Your task to perform on an android device: What's the weather going to be tomorrow? Image 0: 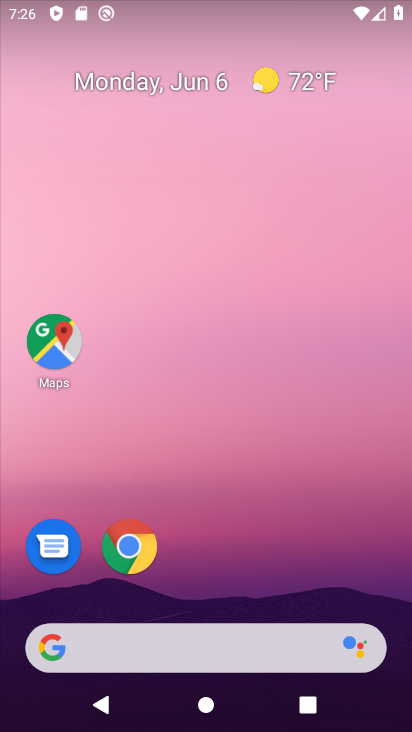
Step 0: click (135, 549)
Your task to perform on an android device: What's the weather going to be tomorrow? Image 1: 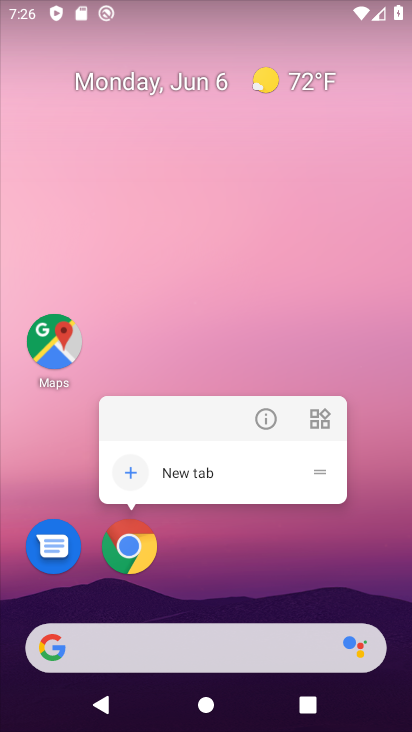
Step 1: click (133, 548)
Your task to perform on an android device: What's the weather going to be tomorrow? Image 2: 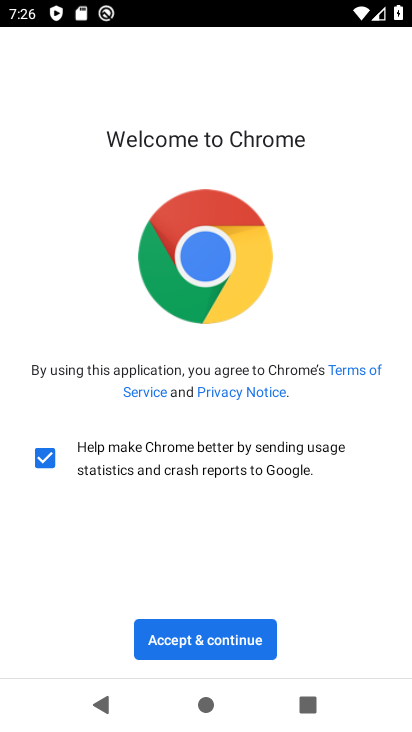
Step 2: click (213, 633)
Your task to perform on an android device: What's the weather going to be tomorrow? Image 3: 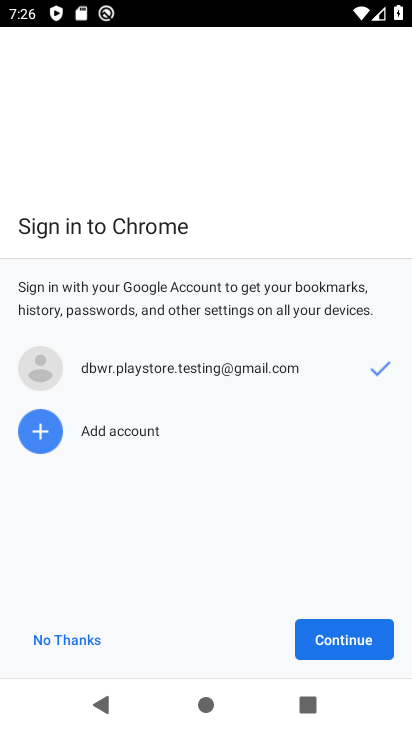
Step 3: click (353, 640)
Your task to perform on an android device: What's the weather going to be tomorrow? Image 4: 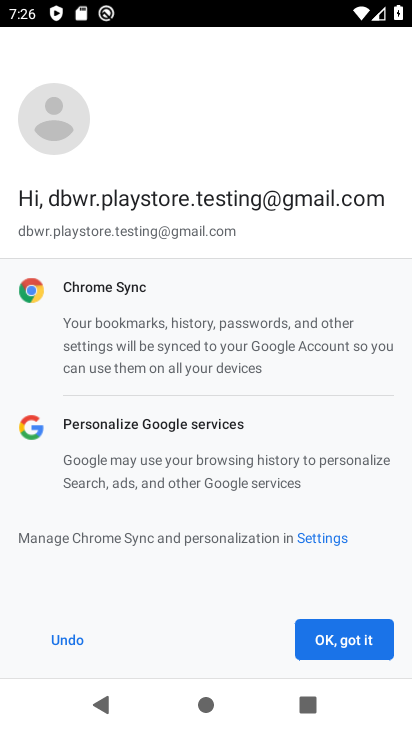
Step 4: click (353, 640)
Your task to perform on an android device: What's the weather going to be tomorrow? Image 5: 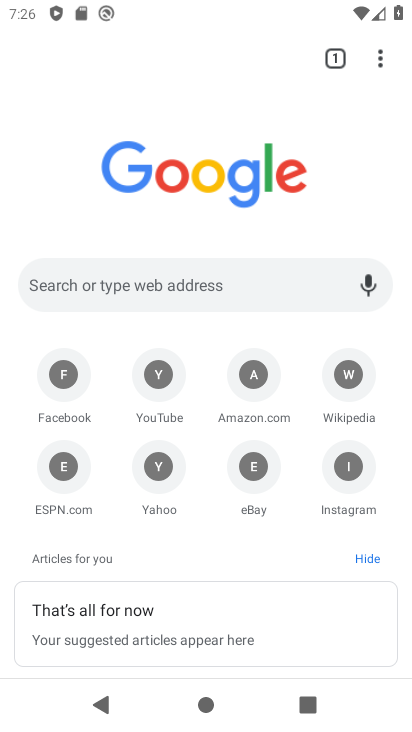
Step 5: click (130, 276)
Your task to perform on an android device: What's the weather going to be tomorrow? Image 6: 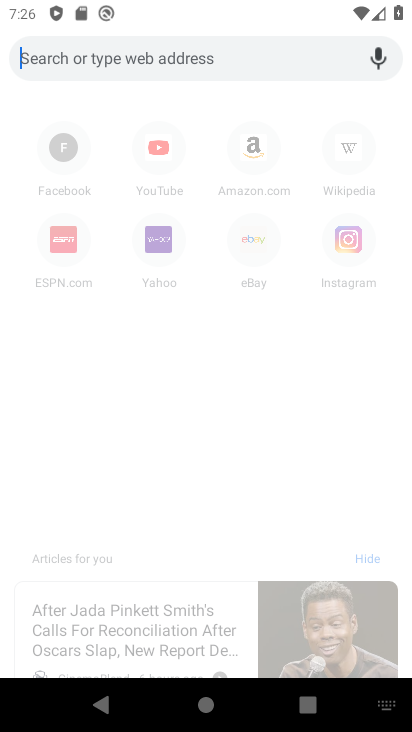
Step 6: click (215, 55)
Your task to perform on an android device: What's the weather going to be tomorrow? Image 7: 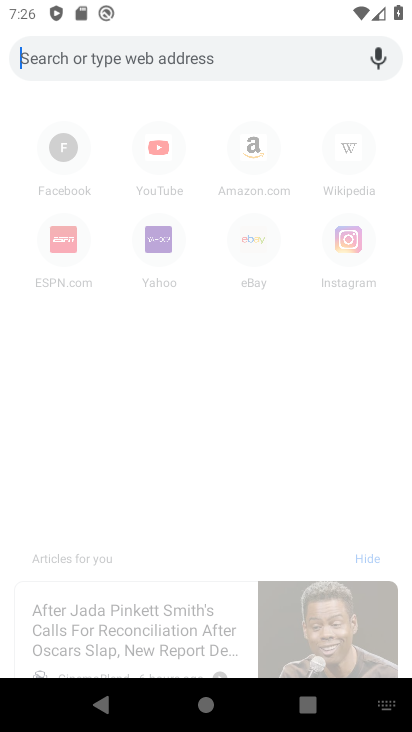
Step 7: type "What's the weather going to be tomorrow?"
Your task to perform on an android device: What's the weather going to be tomorrow? Image 8: 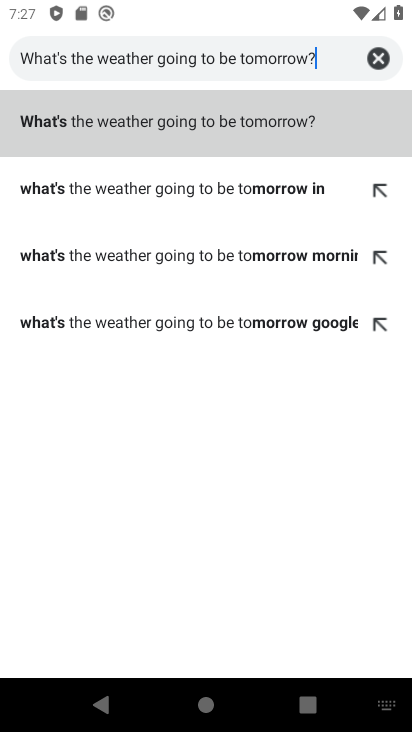
Step 8: click (184, 128)
Your task to perform on an android device: What's the weather going to be tomorrow? Image 9: 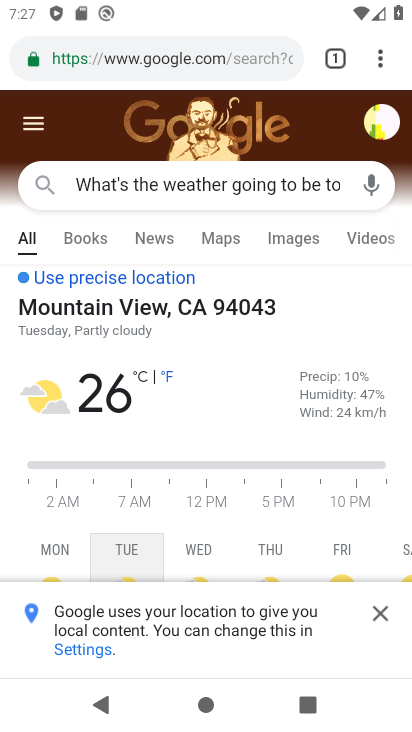
Step 9: task complete